Your task to perform on an android device: Go to display settings Image 0: 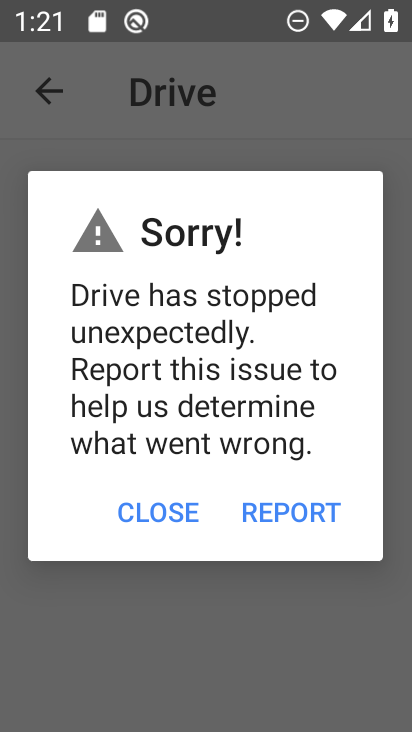
Step 0: press home button
Your task to perform on an android device: Go to display settings Image 1: 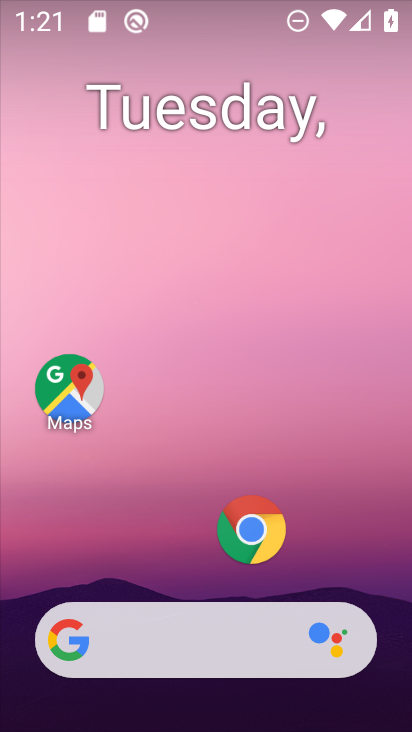
Step 1: drag from (187, 675) to (213, 133)
Your task to perform on an android device: Go to display settings Image 2: 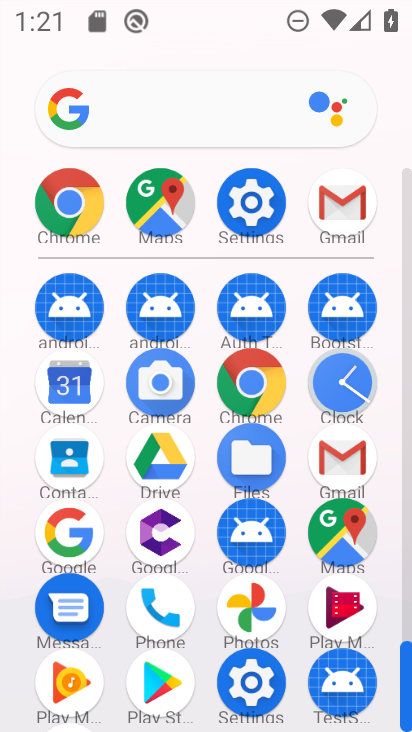
Step 2: click (244, 217)
Your task to perform on an android device: Go to display settings Image 3: 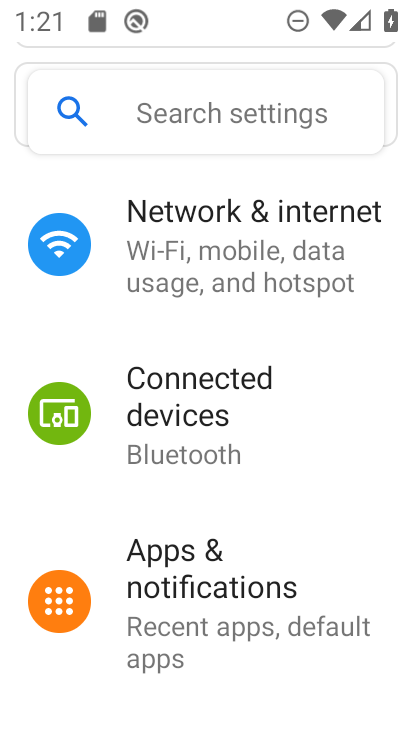
Step 3: drag from (163, 576) to (167, 320)
Your task to perform on an android device: Go to display settings Image 4: 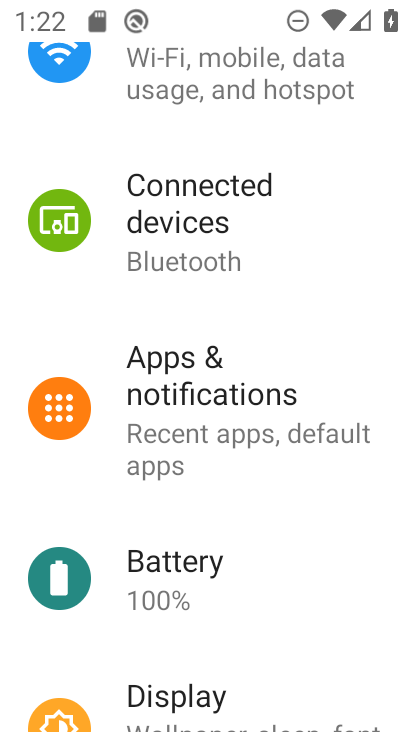
Step 4: click (137, 695)
Your task to perform on an android device: Go to display settings Image 5: 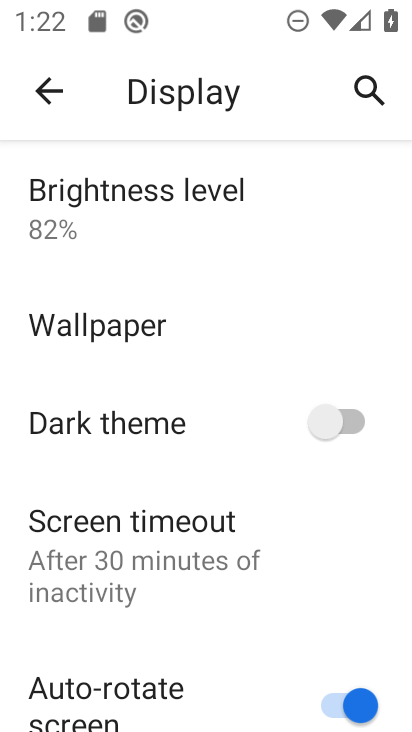
Step 5: task complete